Your task to perform on an android device: change alarm snooze length Image 0: 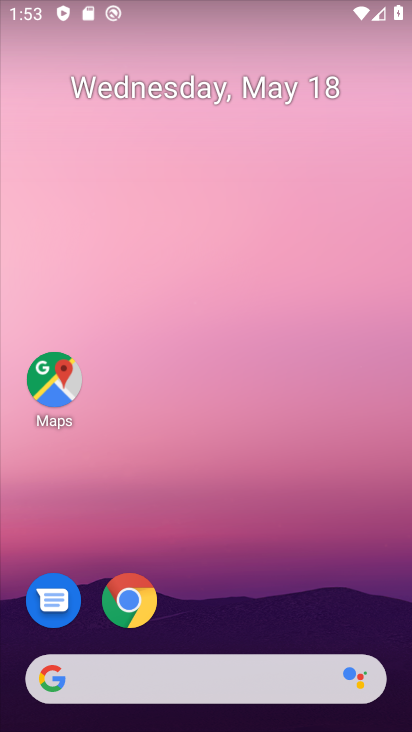
Step 0: press home button
Your task to perform on an android device: change alarm snooze length Image 1: 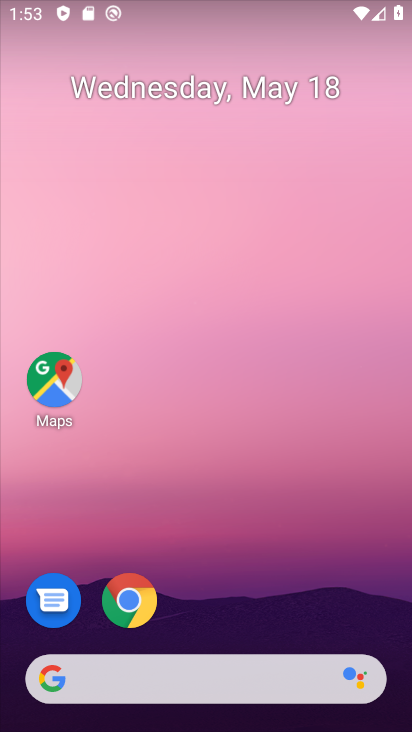
Step 1: drag from (157, 684) to (293, 94)
Your task to perform on an android device: change alarm snooze length Image 2: 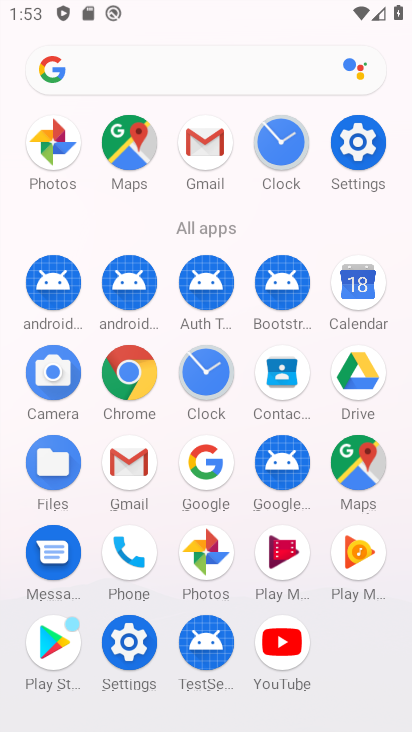
Step 2: click (288, 149)
Your task to perform on an android device: change alarm snooze length Image 3: 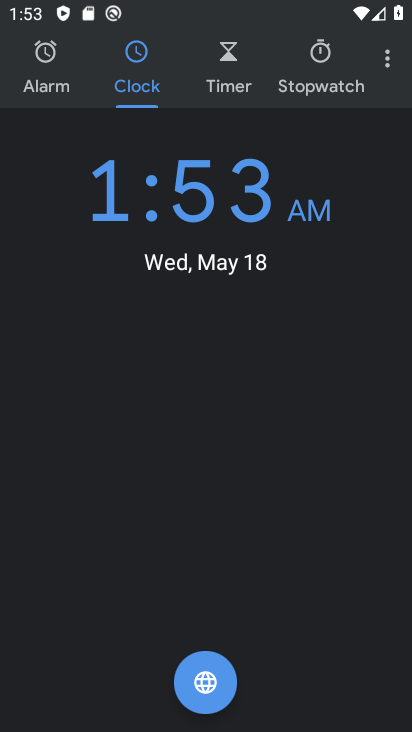
Step 3: click (384, 60)
Your task to perform on an android device: change alarm snooze length Image 4: 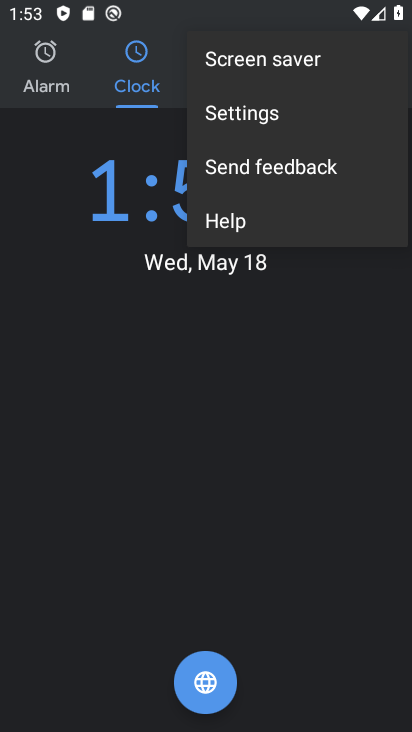
Step 4: click (243, 122)
Your task to perform on an android device: change alarm snooze length Image 5: 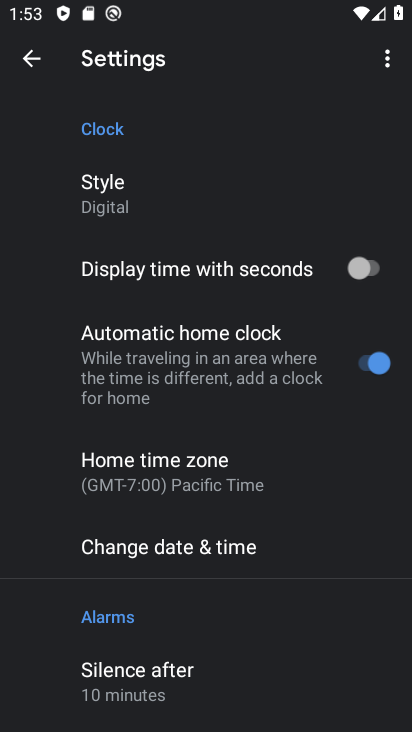
Step 5: drag from (193, 602) to (287, 169)
Your task to perform on an android device: change alarm snooze length Image 6: 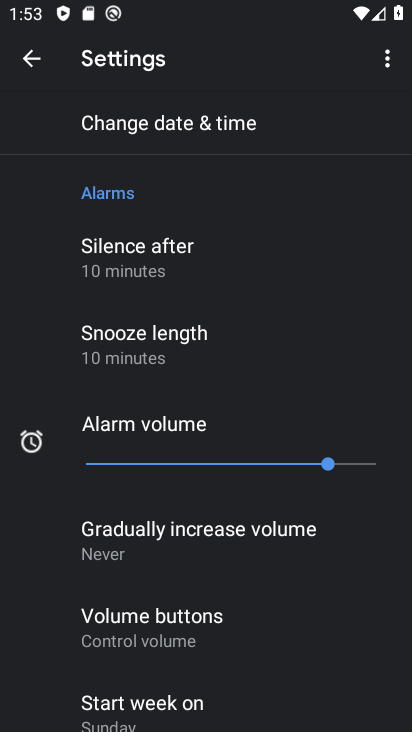
Step 6: click (157, 351)
Your task to perform on an android device: change alarm snooze length Image 7: 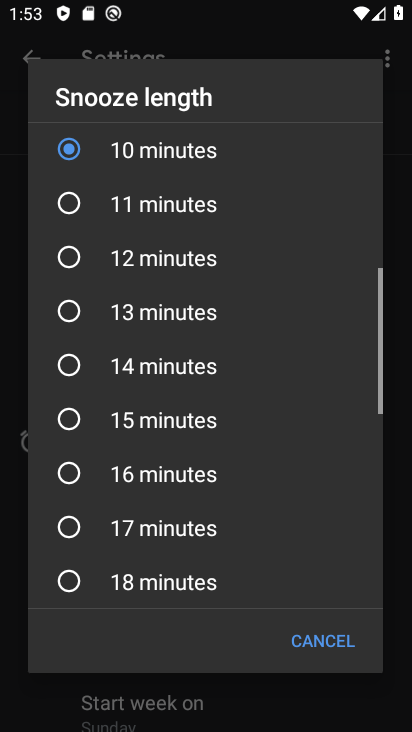
Step 7: click (64, 424)
Your task to perform on an android device: change alarm snooze length Image 8: 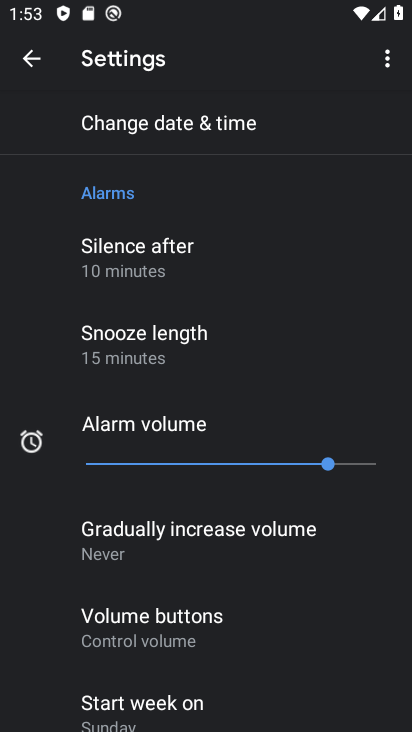
Step 8: task complete